Your task to perform on an android device: see sites visited before in the chrome app Image 0: 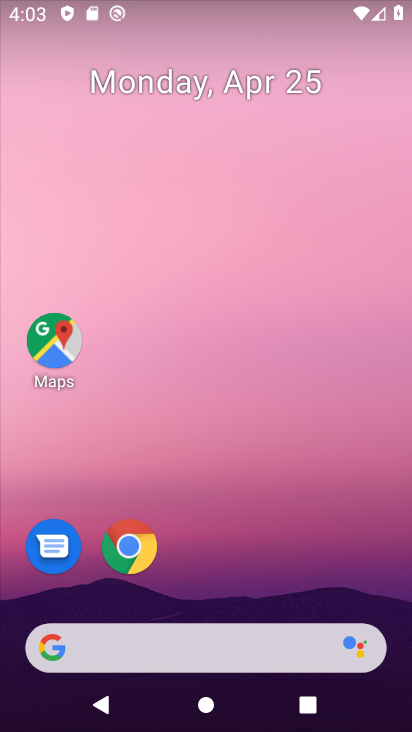
Step 0: drag from (226, 513) to (188, 7)
Your task to perform on an android device: see sites visited before in the chrome app Image 1: 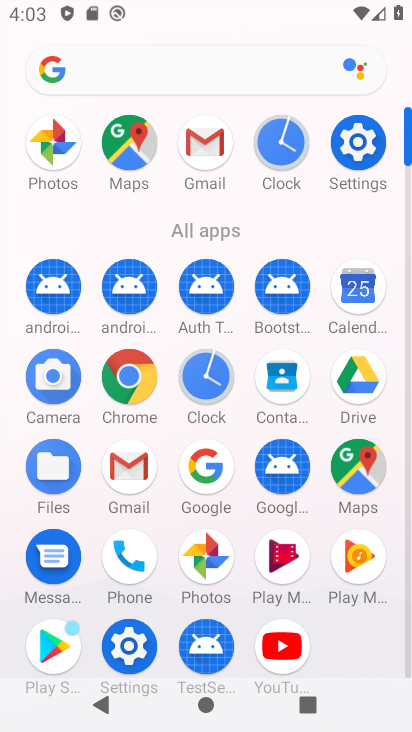
Step 1: click (137, 379)
Your task to perform on an android device: see sites visited before in the chrome app Image 2: 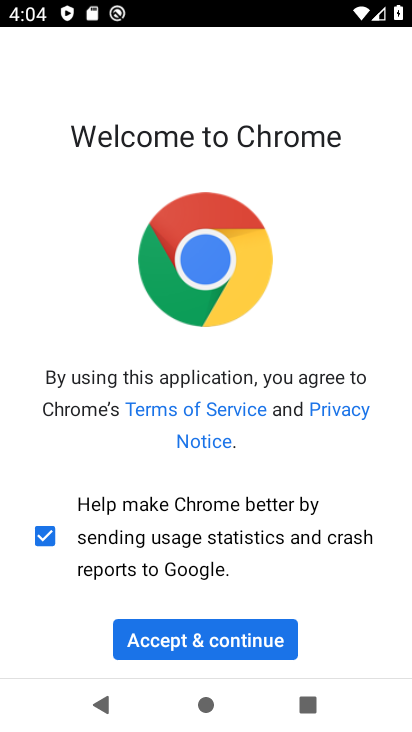
Step 2: click (249, 628)
Your task to perform on an android device: see sites visited before in the chrome app Image 3: 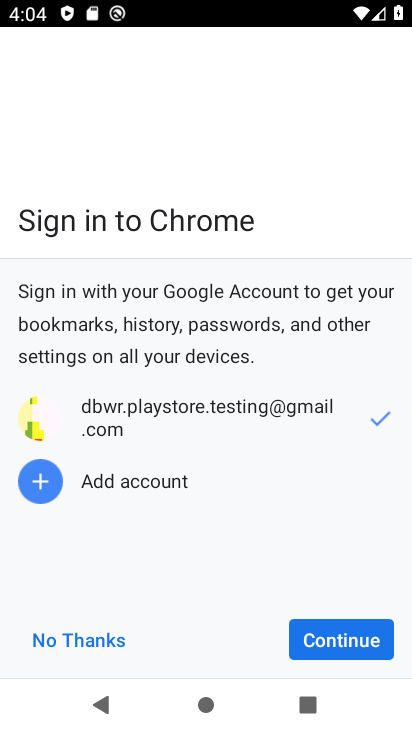
Step 3: click (97, 646)
Your task to perform on an android device: see sites visited before in the chrome app Image 4: 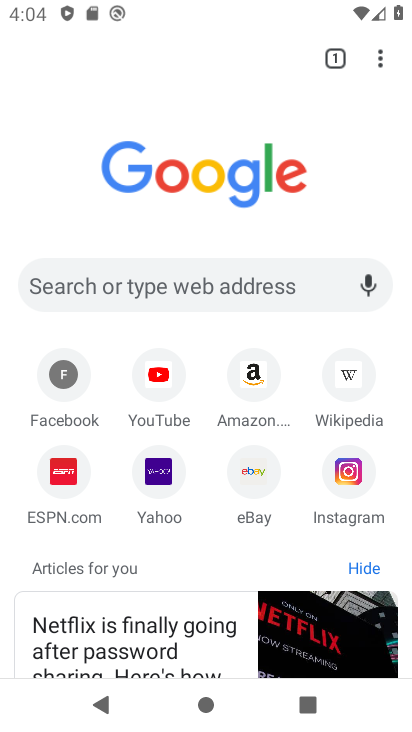
Step 4: task complete